Your task to perform on an android device: check storage Image 0: 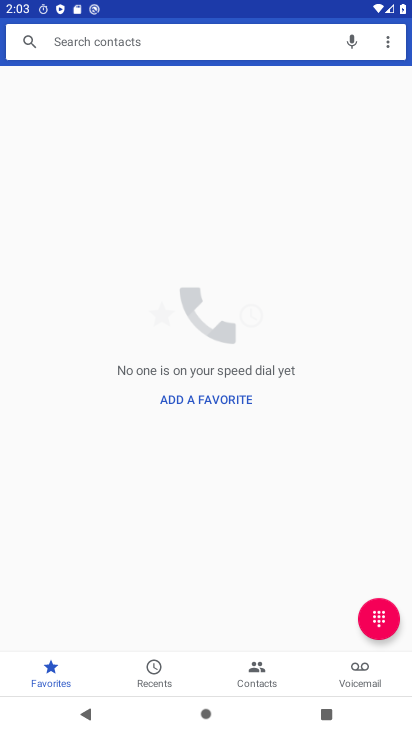
Step 0: press home button
Your task to perform on an android device: check storage Image 1: 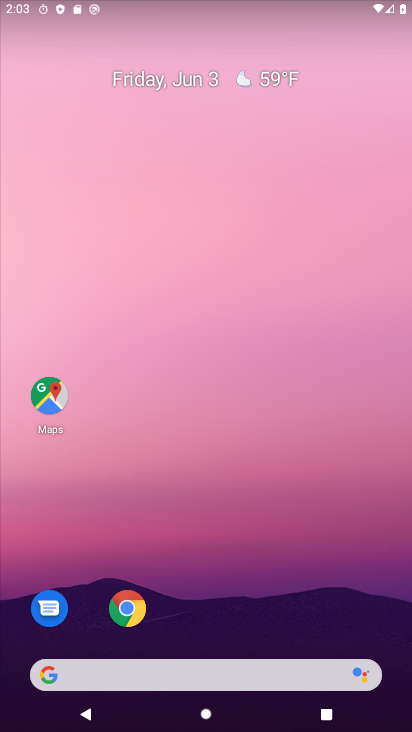
Step 1: drag from (214, 683) to (389, 110)
Your task to perform on an android device: check storage Image 2: 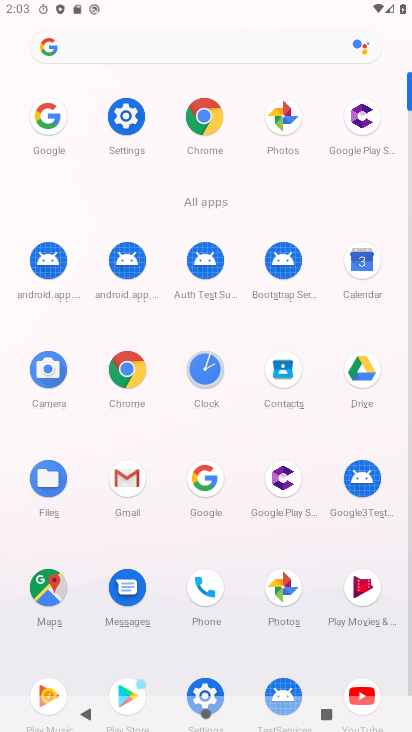
Step 2: click (140, 118)
Your task to perform on an android device: check storage Image 3: 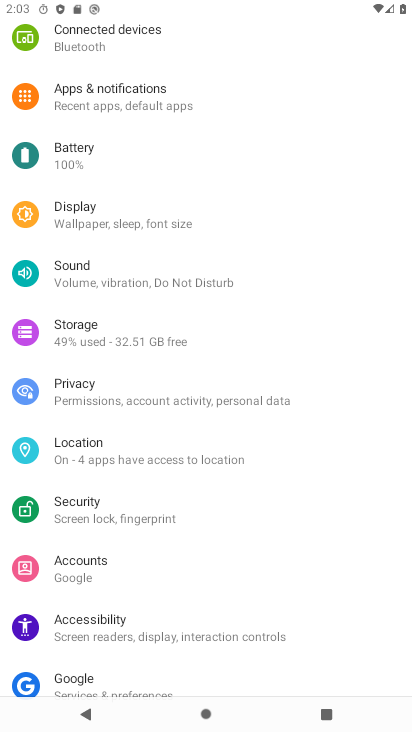
Step 3: click (122, 336)
Your task to perform on an android device: check storage Image 4: 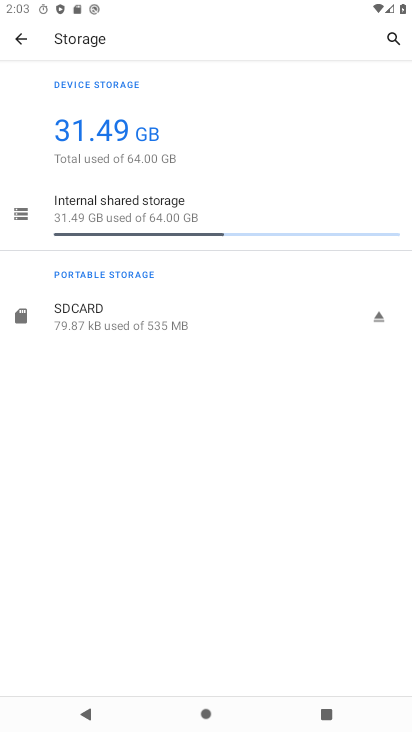
Step 4: task complete